Your task to perform on an android device: set an alarm Image 0: 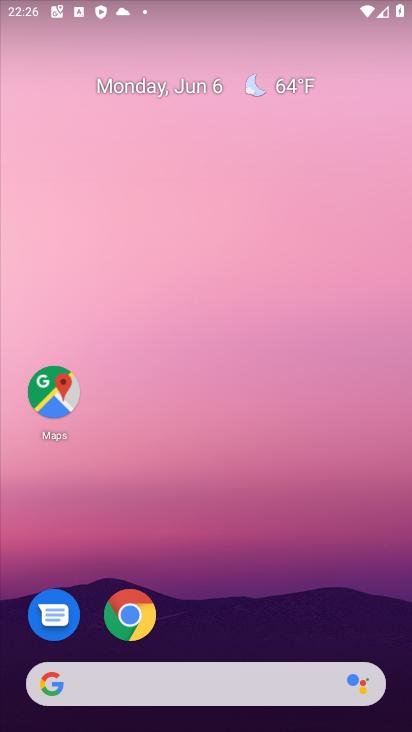
Step 0: drag from (402, 705) to (364, 194)
Your task to perform on an android device: set an alarm Image 1: 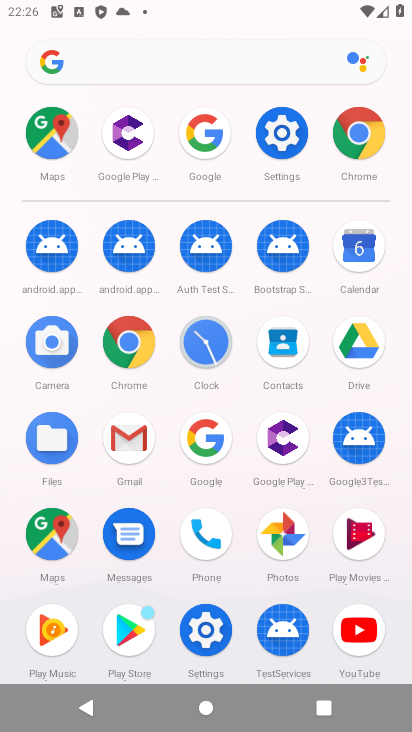
Step 1: click (215, 340)
Your task to perform on an android device: set an alarm Image 2: 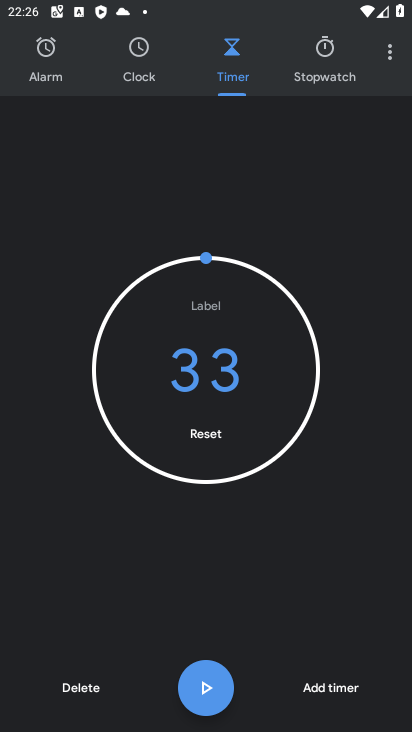
Step 2: click (56, 49)
Your task to perform on an android device: set an alarm Image 3: 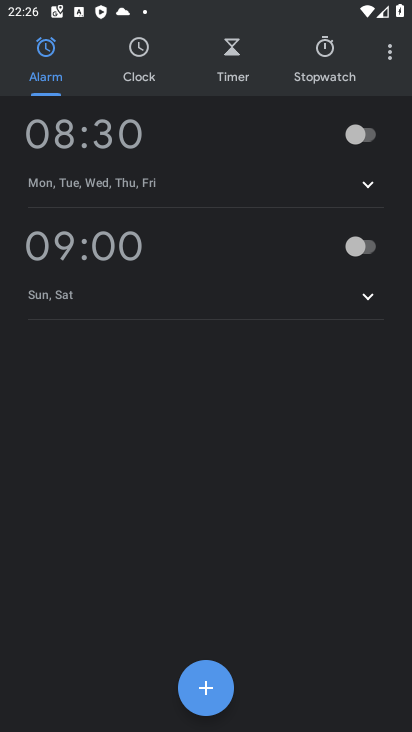
Step 3: click (369, 133)
Your task to perform on an android device: set an alarm Image 4: 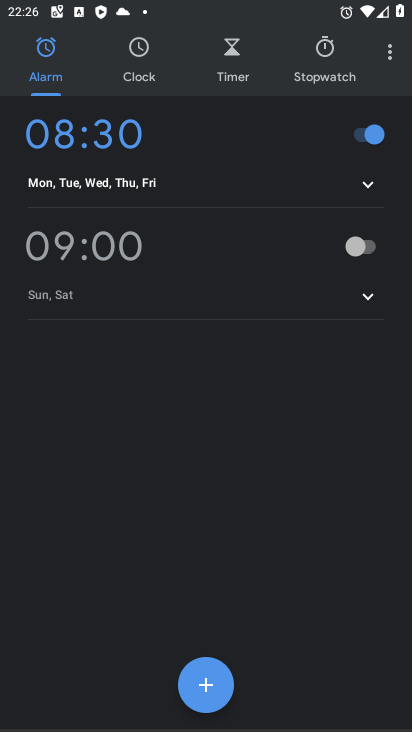
Step 4: task complete